Your task to perform on an android device: Go to location settings Image 0: 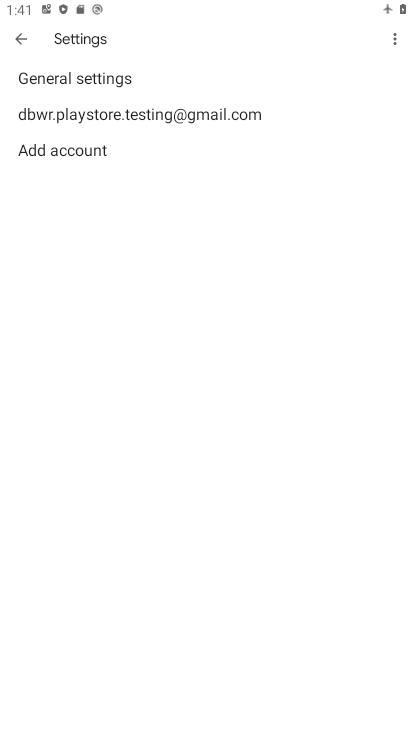
Step 0: press home button
Your task to perform on an android device: Go to location settings Image 1: 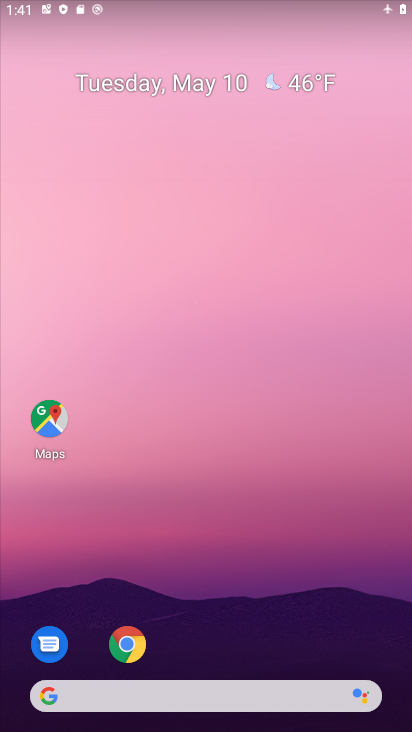
Step 1: drag from (267, 623) to (303, 209)
Your task to perform on an android device: Go to location settings Image 2: 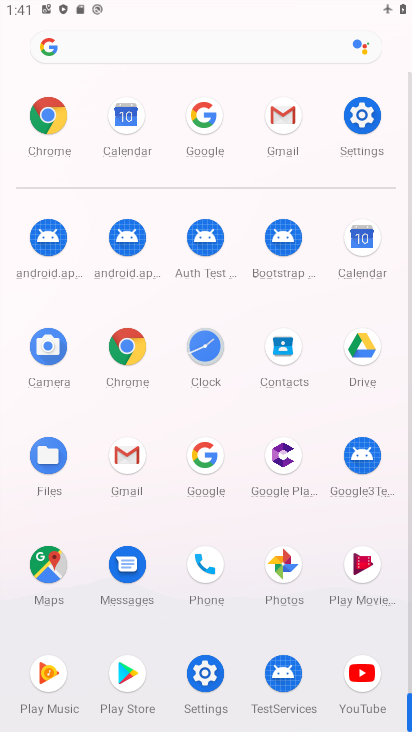
Step 2: click (356, 120)
Your task to perform on an android device: Go to location settings Image 3: 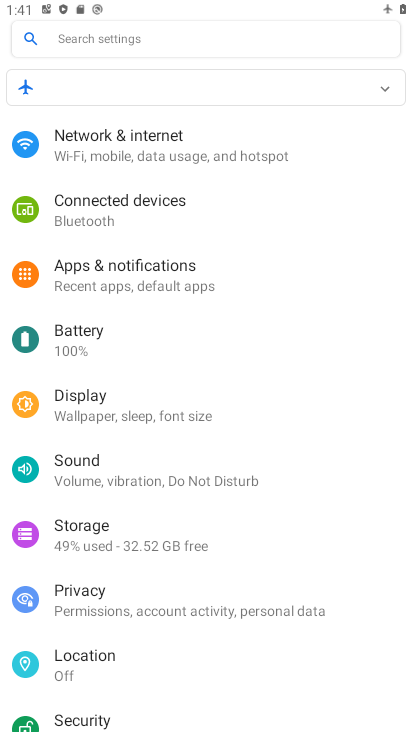
Step 3: click (135, 665)
Your task to perform on an android device: Go to location settings Image 4: 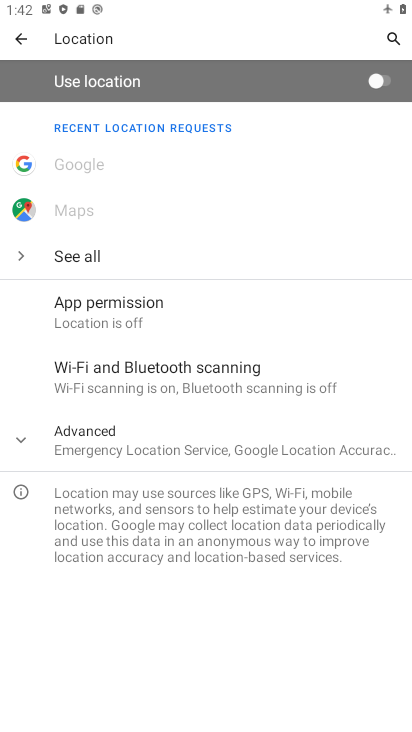
Step 4: task complete